Your task to perform on an android device: open sync settings in chrome Image 0: 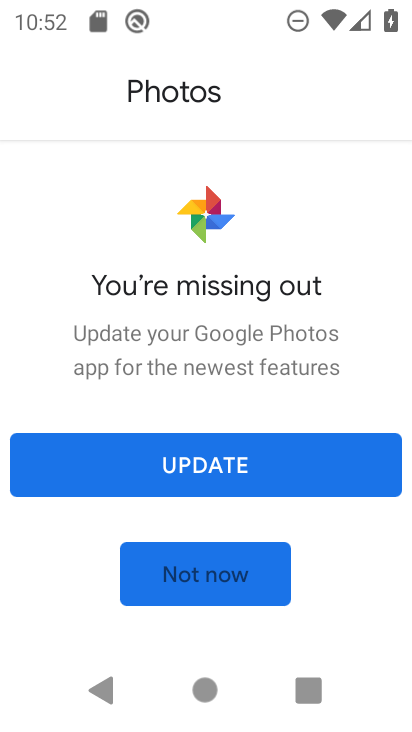
Step 0: press home button
Your task to perform on an android device: open sync settings in chrome Image 1: 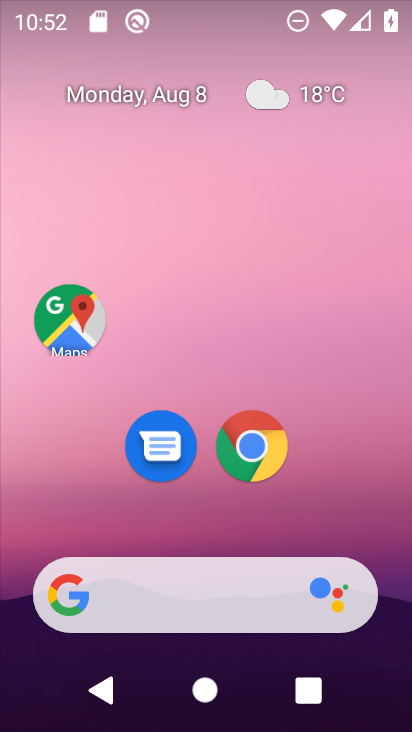
Step 1: click (251, 447)
Your task to perform on an android device: open sync settings in chrome Image 2: 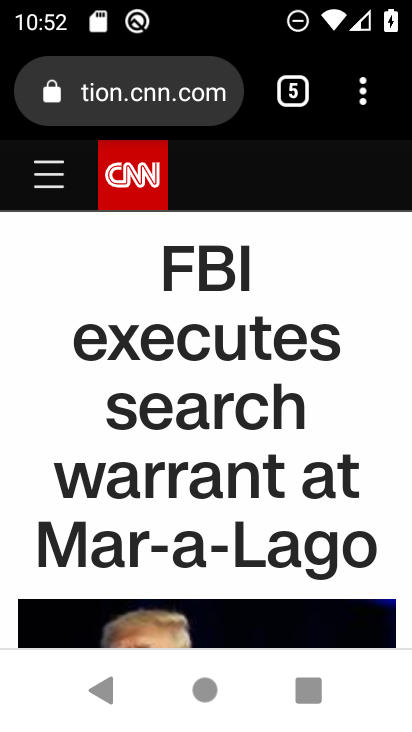
Step 2: click (362, 101)
Your task to perform on an android device: open sync settings in chrome Image 3: 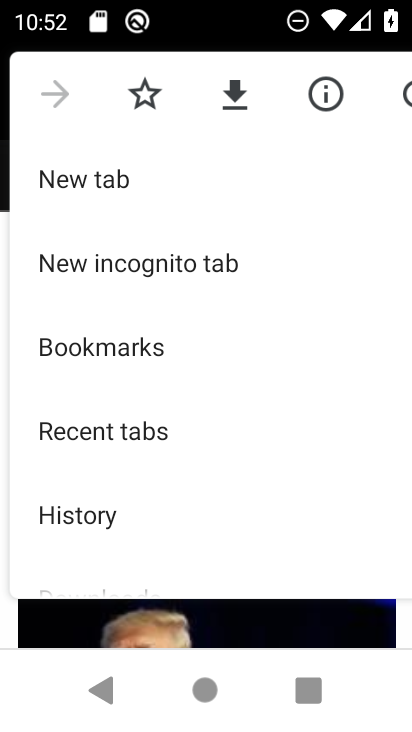
Step 3: drag from (212, 537) to (249, 191)
Your task to perform on an android device: open sync settings in chrome Image 4: 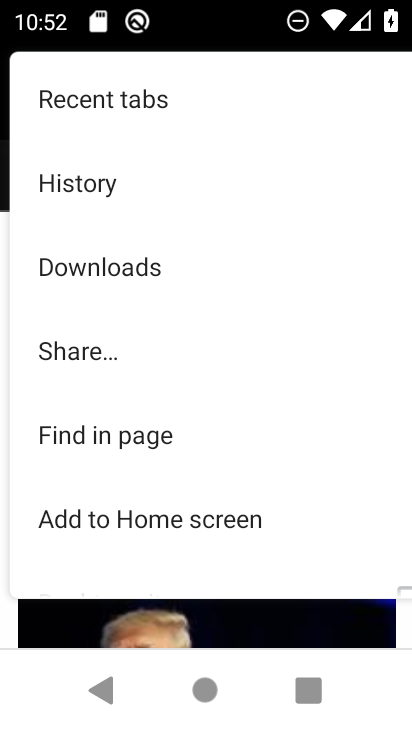
Step 4: drag from (269, 492) to (265, 233)
Your task to perform on an android device: open sync settings in chrome Image 5: 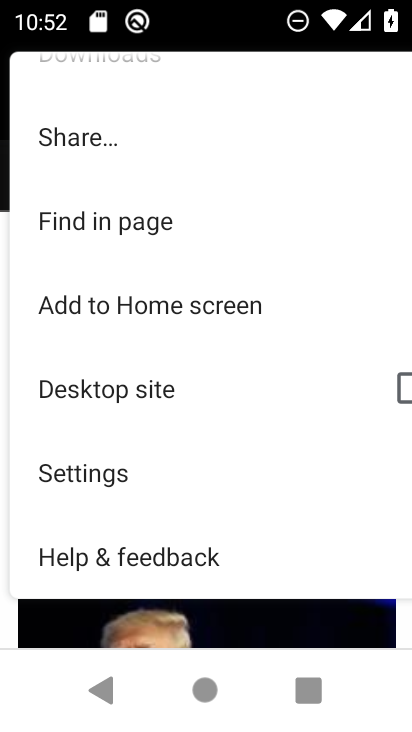
Step 5: click (100, 468)
Your task to perform on an android device: open sync settings in chrome Image 6: 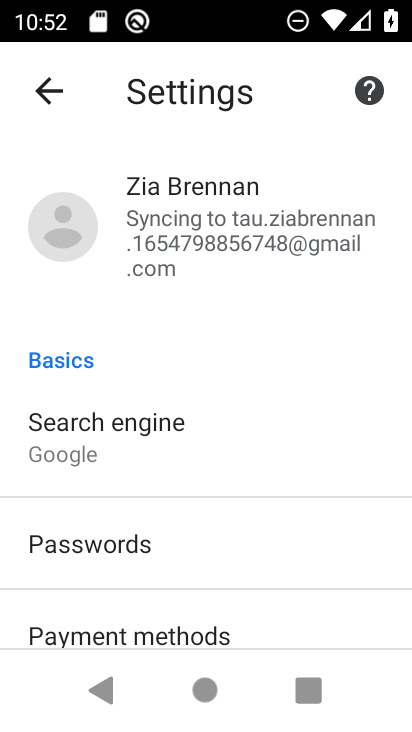
Step 6: drag from (236, 580) to (237, 226)
Your task to perform on an android device: open sync settings in chrome Image 7: 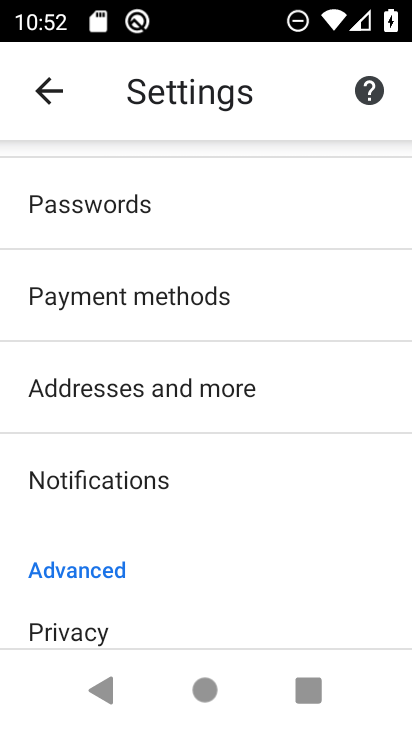
Step 7: drag from (238, 228) to (238, 612)
Your task to perform on an android device: open sync settings in chrome Image 8: 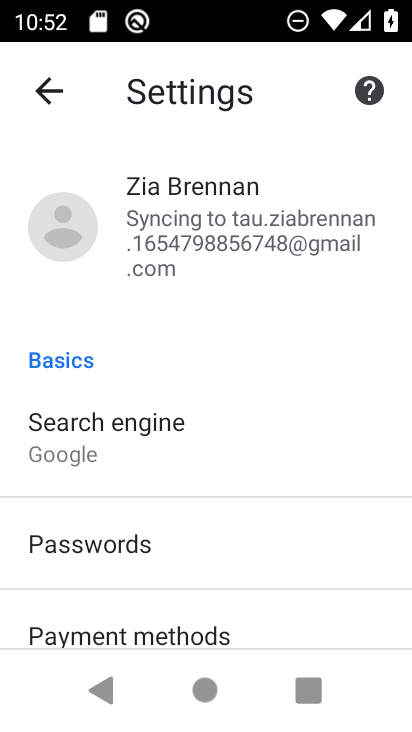
Step 8: click (193, 207)
Your task to perform on an android device: open sync settings in chrome Image 9: 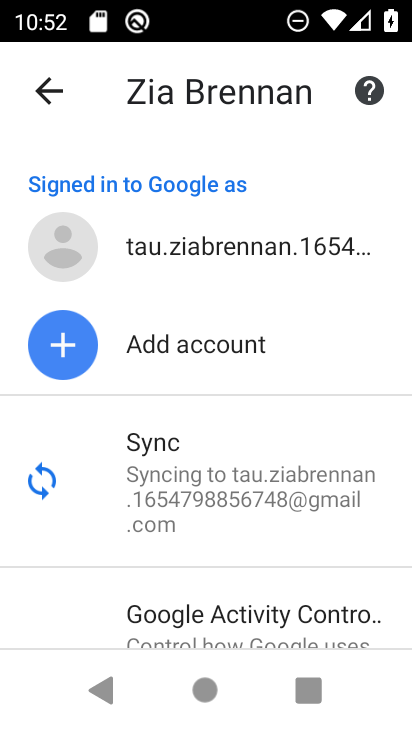
Step 9: click (167, 483)
Your task to perform on an android device: open sync settings in chrome Image 10: 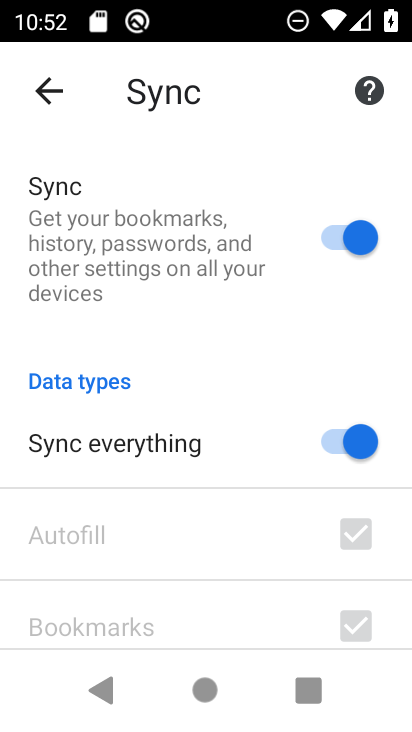
Step 10: task complete